Your task to perform on an android device: delete a single message in the gmail app Image 0: 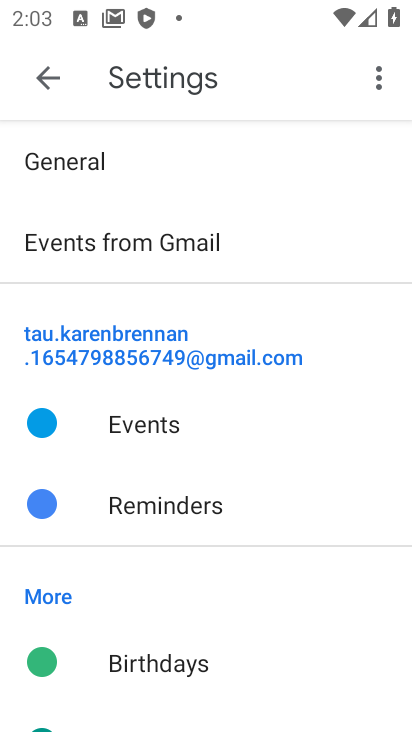
Step 0: press home button
Your task to perform on an android device: delete a single message in the gmail app Image 1: 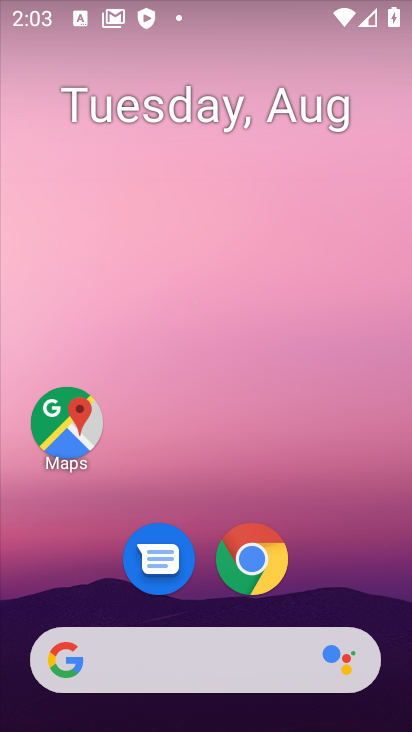
Step 1: drag from (214, 470) to (205, 84)
Your task to perform on an android device: delete a single message in the gmail app Image 2: 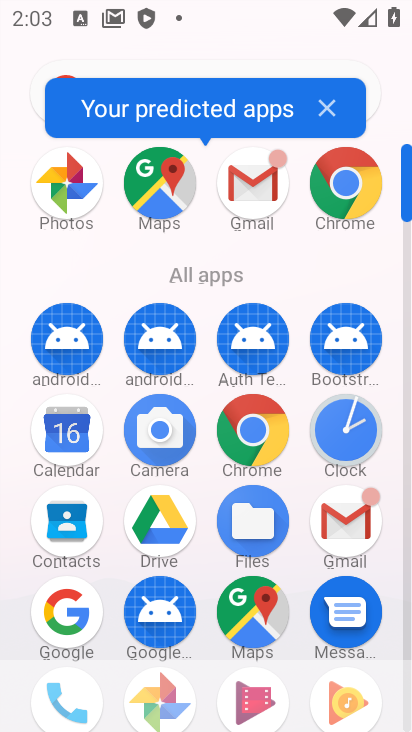
Step 2: click (238, 209)
Your task to perform on an android device: delete a single message in the gmail app Image 3: 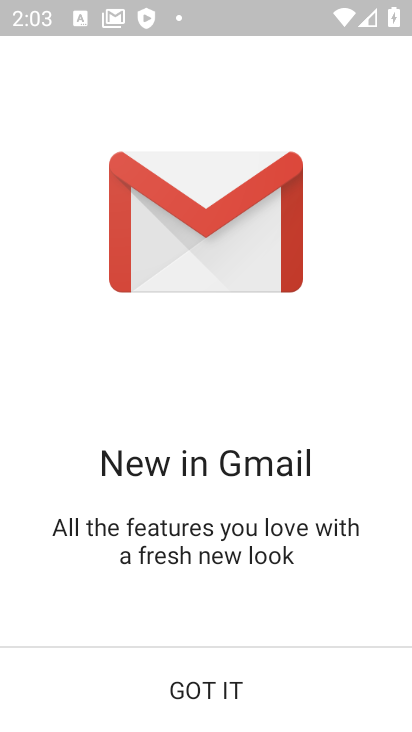
Step 3: click (232, 691)
Your task to perform on an android device: delete a single message in the gmail app Image 4: 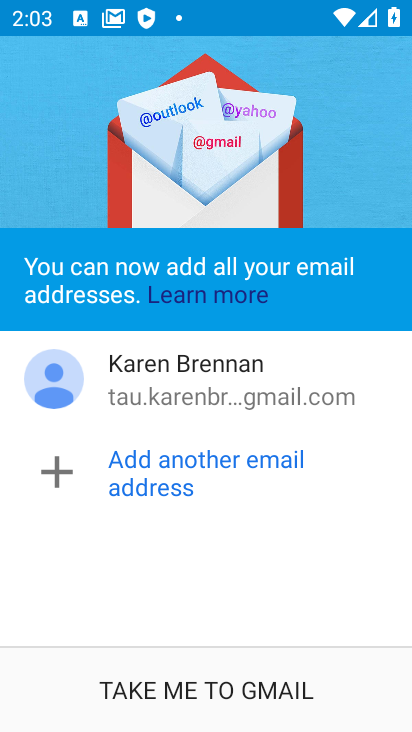
Step 4: click (232, 691)
Your task to perform on an android device: delete a single message in the gmail app Image 5: 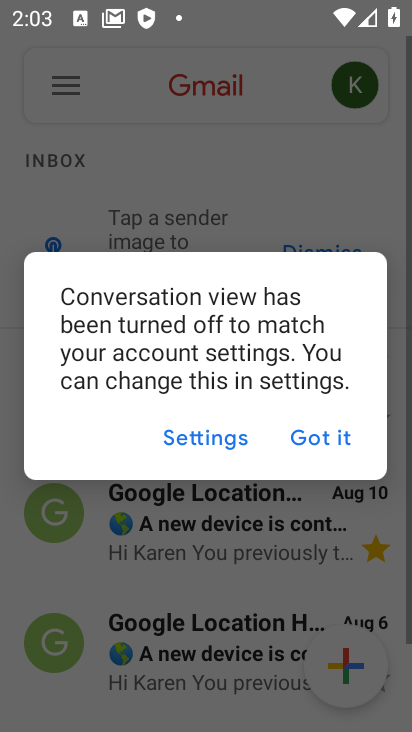
Step 5: click (296, 440)
Your task to perform on an android device: delete a single message in the gmail app Image 6: 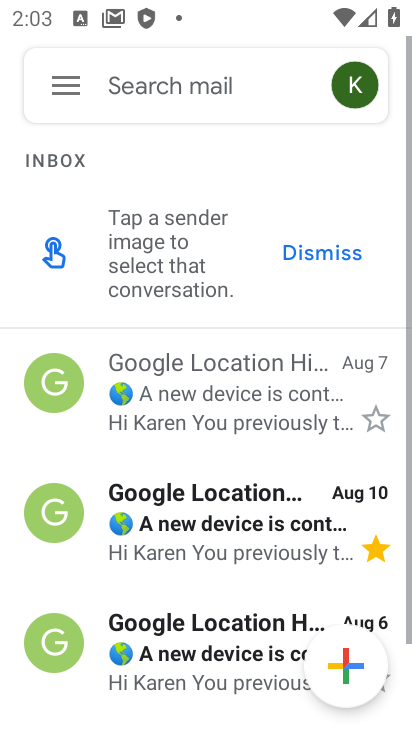
Step 6: click (220, 394)
Your task to perform on an android device: delete a single message in the gmail app Image 7: 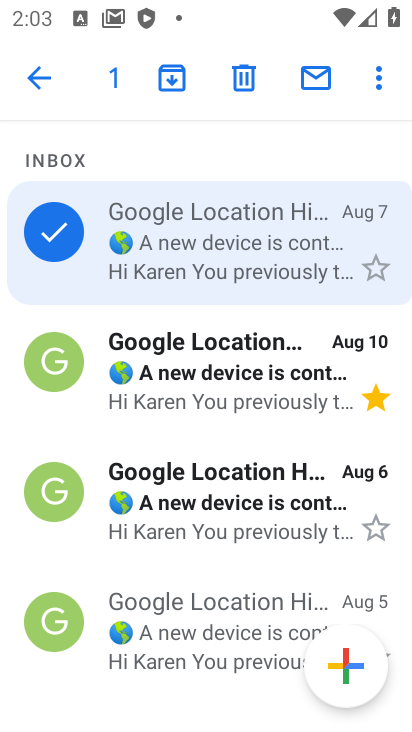
Step 7: click (253, 78)
Your task to perform on an android device: delete a single message in the gmail app Image 8: 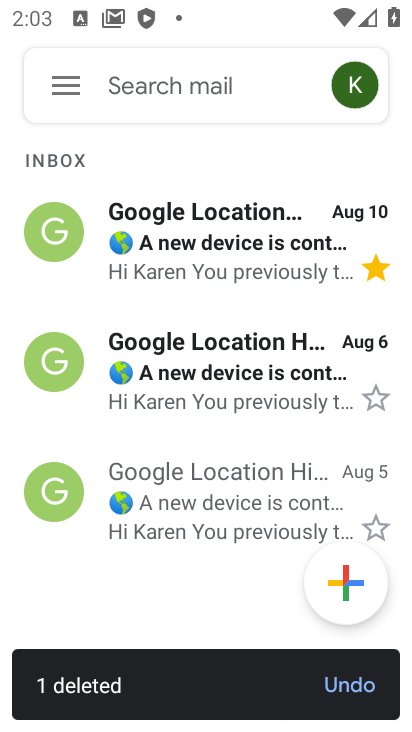
Step 8: task complete